Your task to perform on an android device: Search for asus zenbook on target.com, select the first entry, and add it to the cart. Image 0: 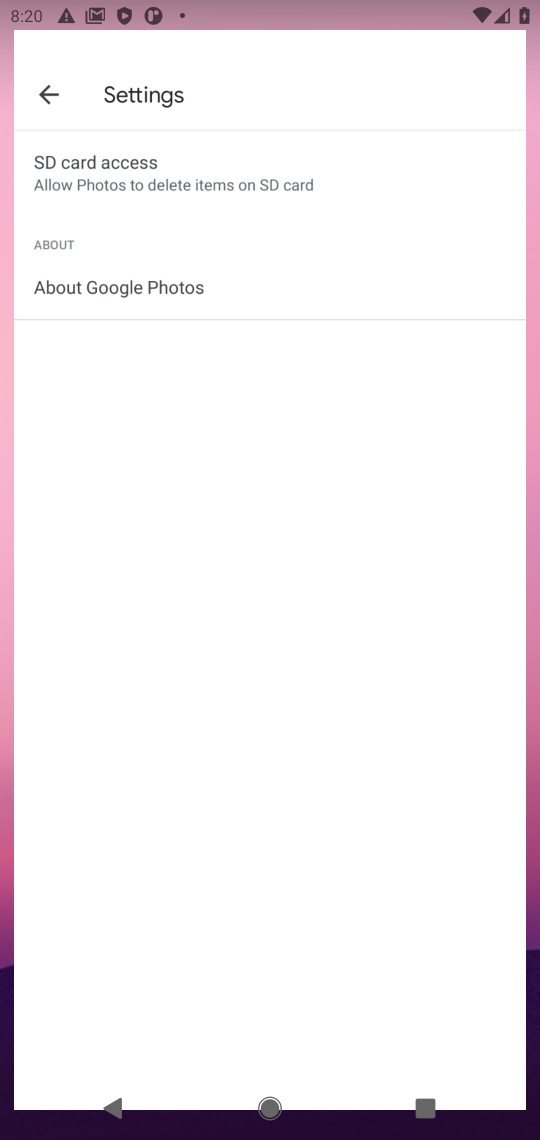
Step 0: click (390, 911)
Your task to perform on an android device: Search for asus zenbook on target.com, select the first entry, and add it to the cart. Image 1: 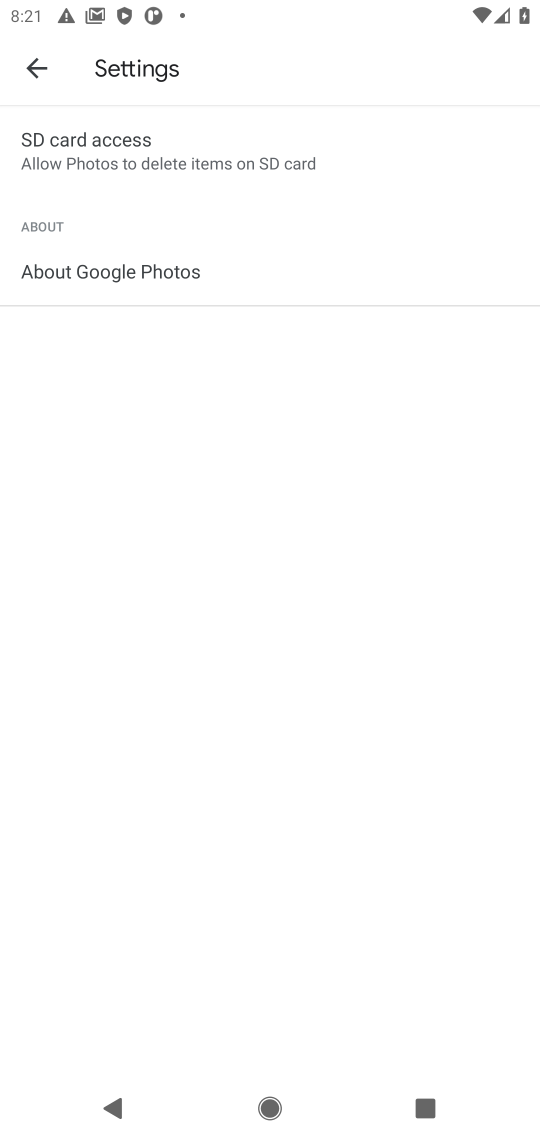
Step 1: press home button
Your task to perform on an android device: Search for asus zenbook on target.com, select the first entry, and add it to the cart. Image 2: 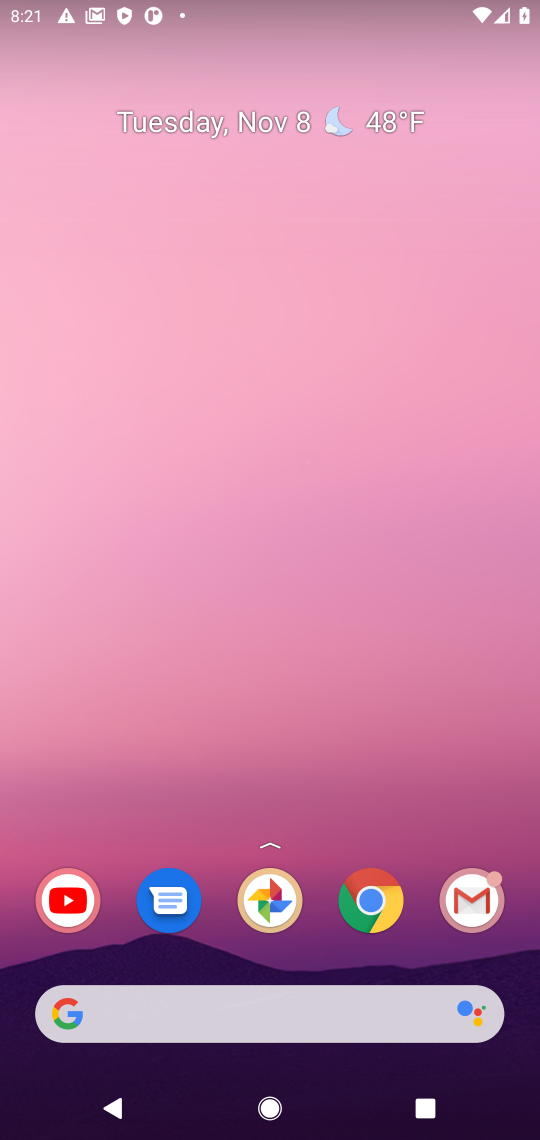
Step 2: click (370, 903)
Your task to perform on an android device: Search for asus zenbook on target.com, select the first entry, and add it to the cart. Image 3: 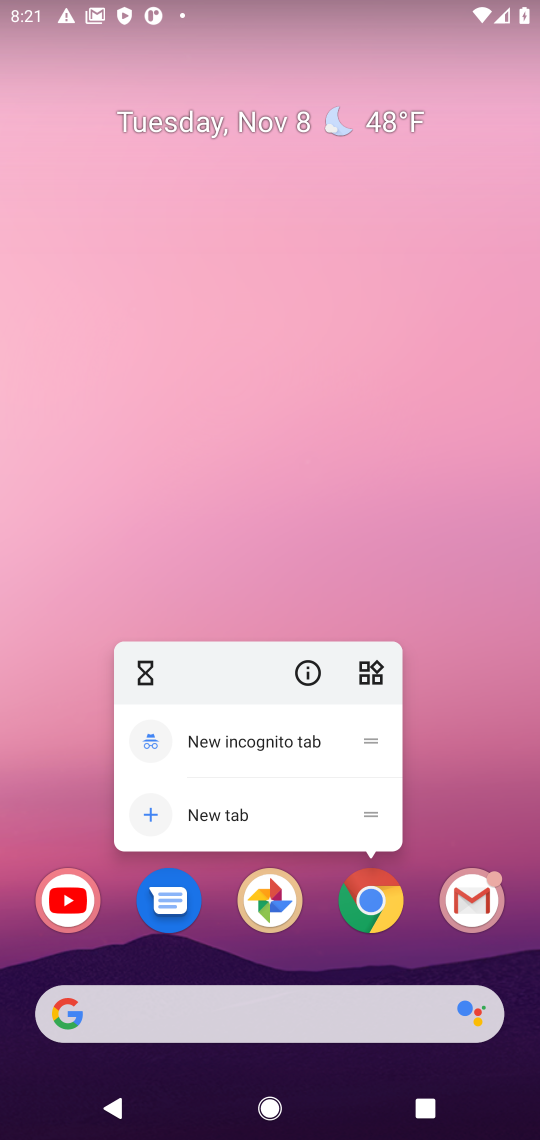
Step 3: click (371, 903)
Your task to perform on an android device: Search for asus zenbook on target.com, select the first entry, and add it to the cart. Image 4: 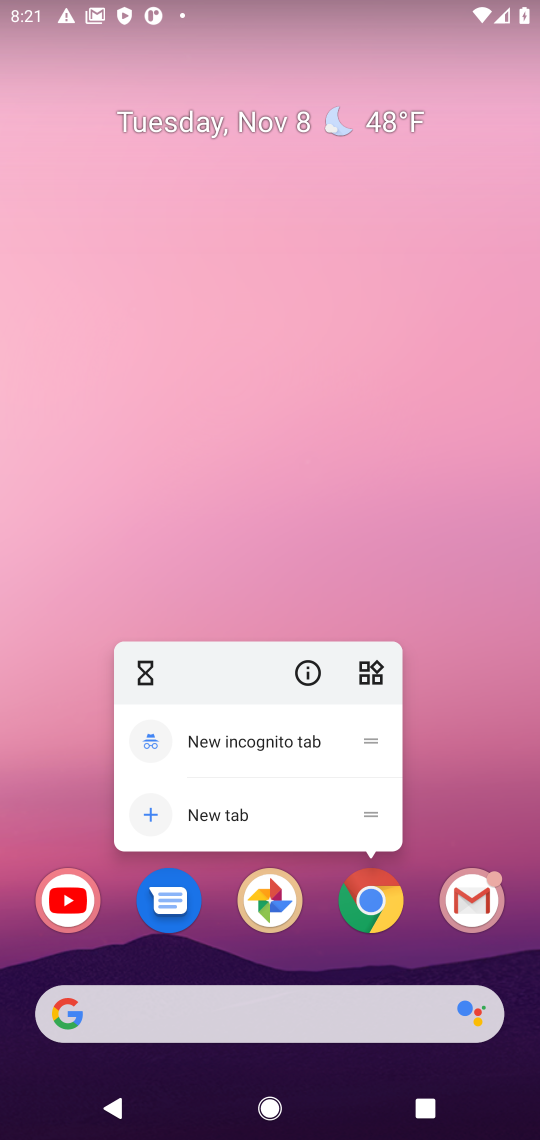
Step 4: click (380, 891)
Your task to perform on an android device: Search for asus zenbook on target.com, select the first entry, and add it to the cart. Image 5: 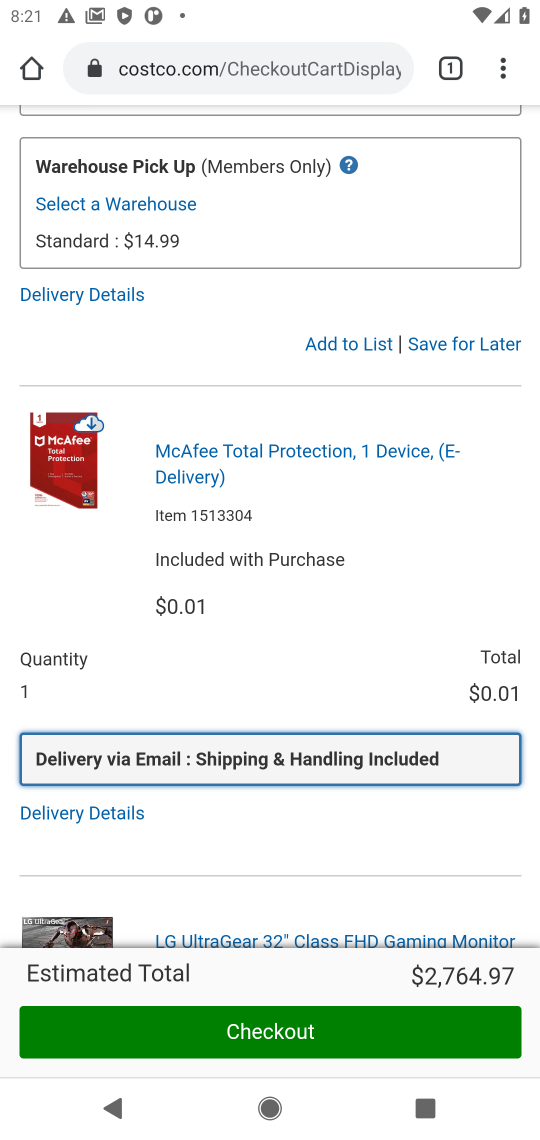
Step 5: click (175, 67)
Your task to perform on an android device: Search for asus zenbook on target.com, select the first entry, and add it to the cart. Image 6: 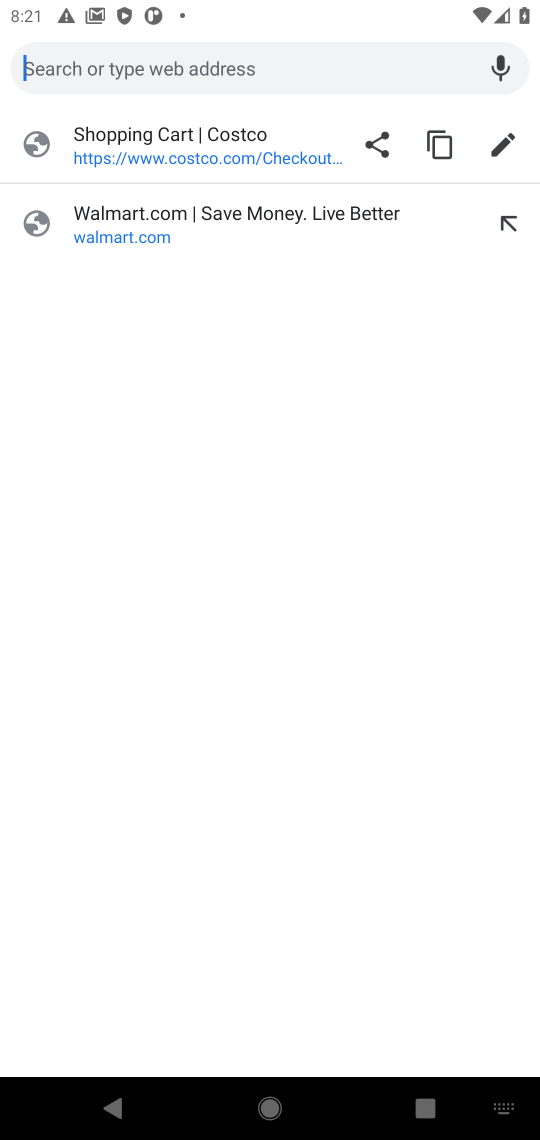
Step 6: type "target"
Your task to perform on an android device: Search for asus zenbook on target.com, select the first entry, and add it to the cart. Image 7: 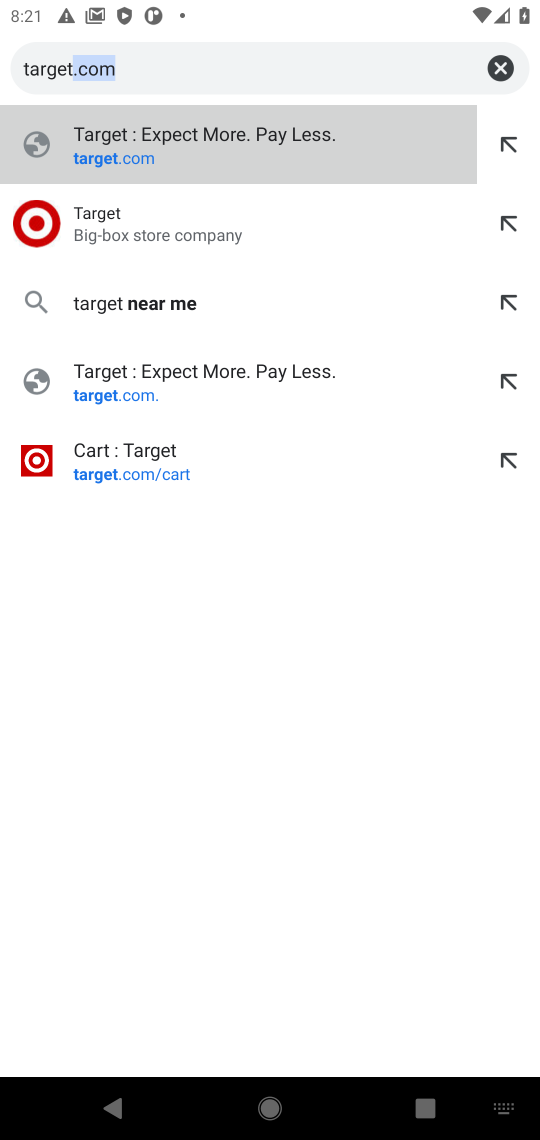
Step 7: click (125, 223)
Your task to perform on an android device: Search for asus zenbook on target.com, select the first entry, and add it to the cart. Image 8: 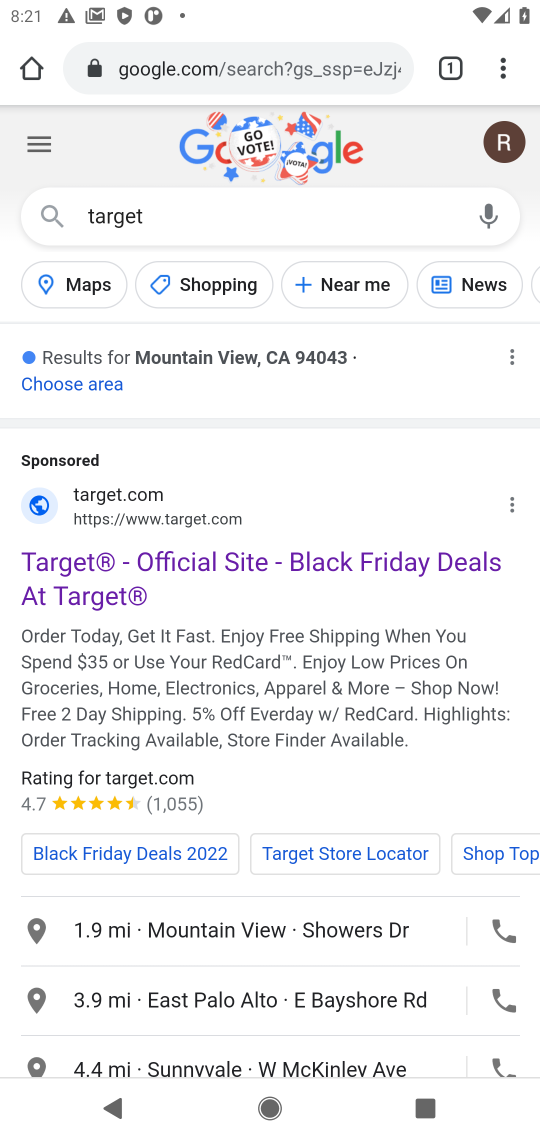
Step 8: drag from (214, 743) to (201, 92)
Your task to perform on an android device: Search for asus zenbook on target.com, select the first entry, and add it to the cart. Image 9: 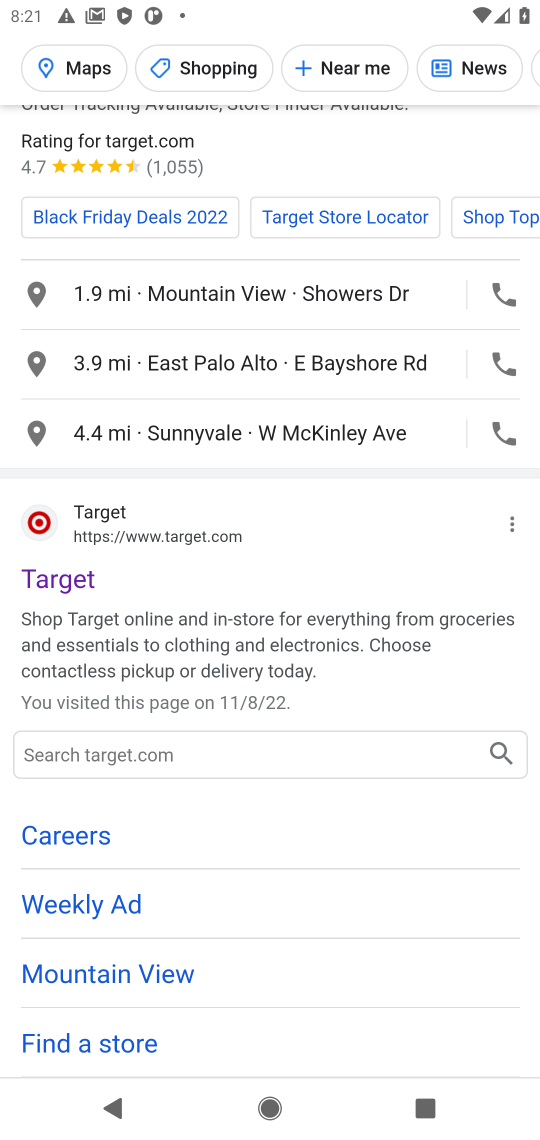
Step 9: click (64, 584)
Your task to perform on an android device: Search for asus zenbook on target.com, select the first entry, and add it to the cart. Image 10: 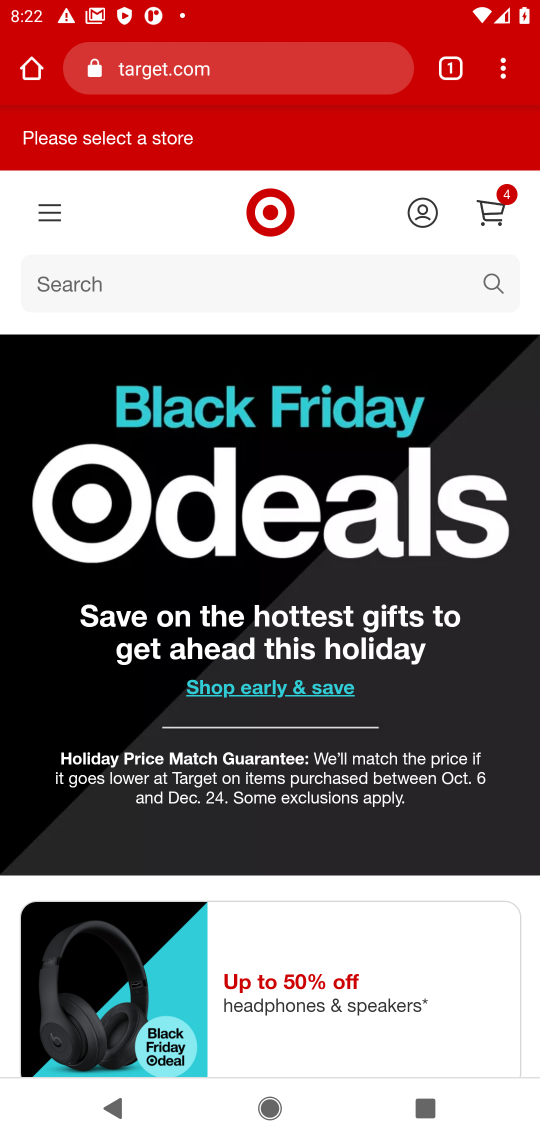
Step 10: click (231, 296)
Your task to perform on an android device: Search for asus zenbook on target.com, select the first entry, and add it to the cart. Image 11: 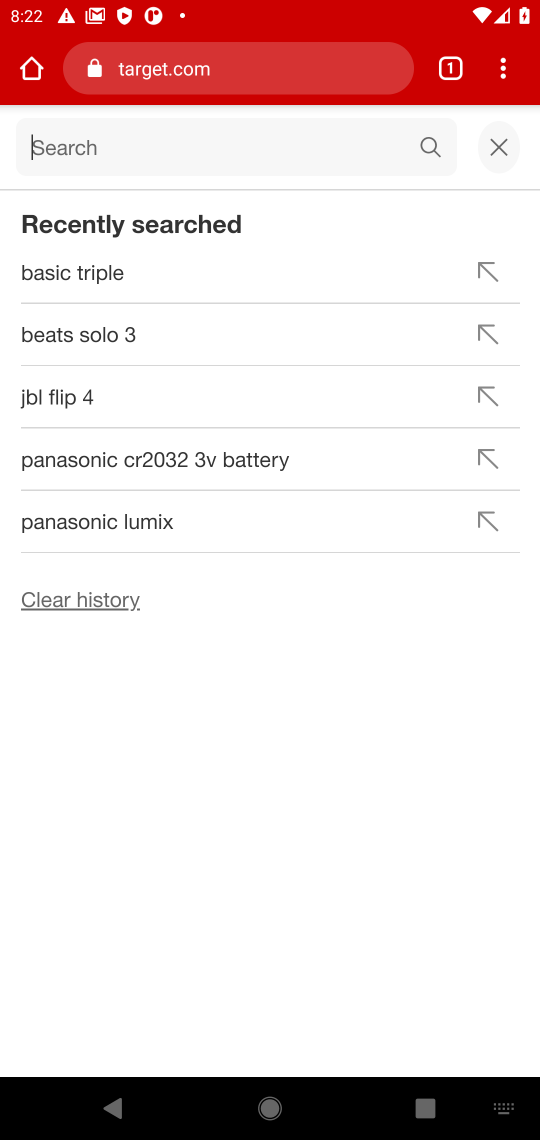
Step 11: type "asus zenbook"
Your task to perform on an android device: Search for asus zenbook on target.com, select the first entry, and add it to the cart. Image 12: 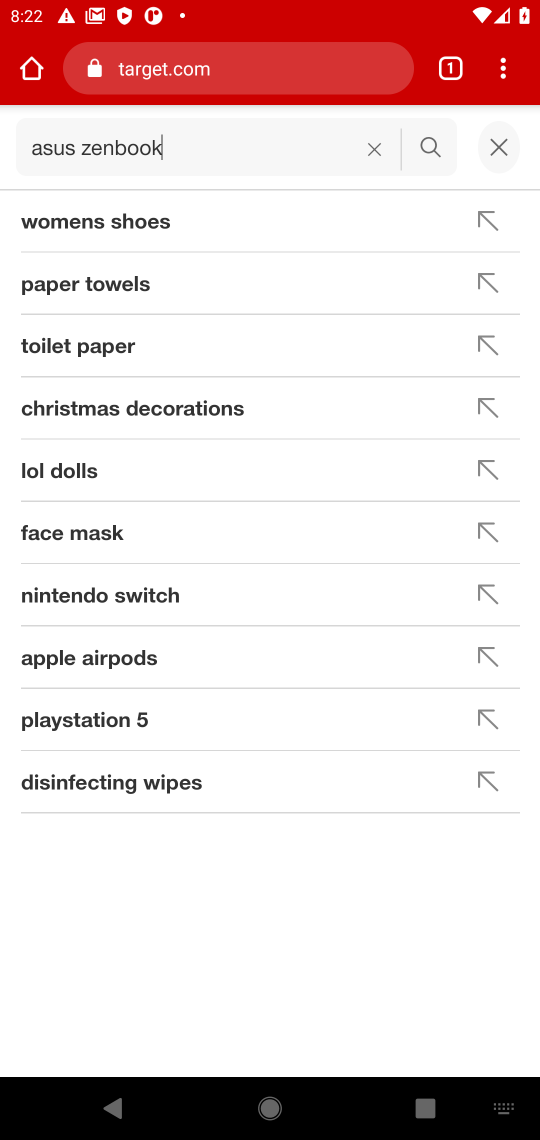
Step 12: type ""
Your task to perform on an android device: Search for asus zenbook on target.com, select the first entry, and add it to the cart. Image 13: 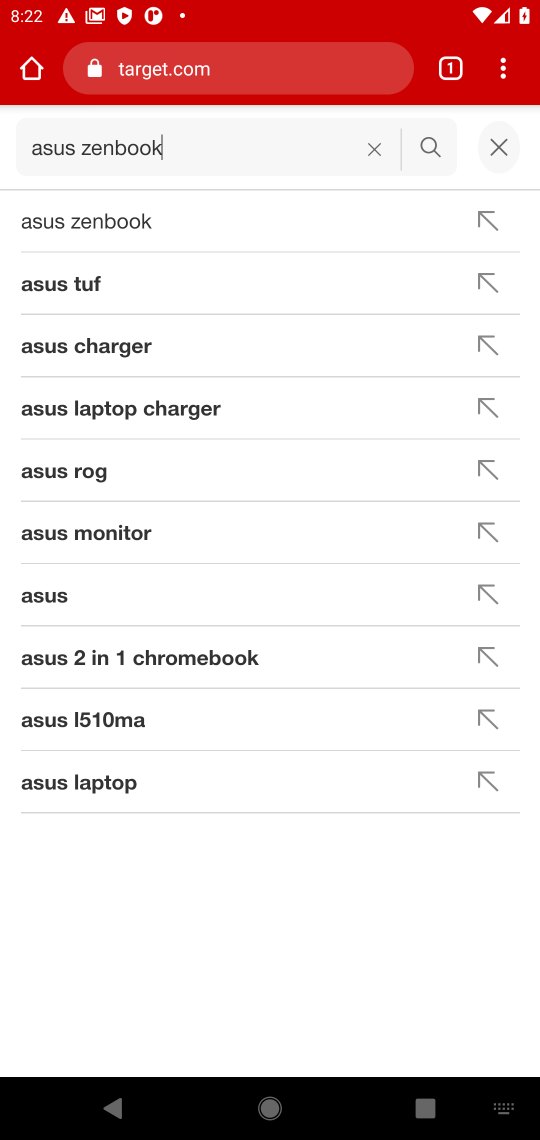
Step 13: click (115, 225)
Your task to perform on an android device: Search for asus zenbook on target.com, select the first entry, and add it to the cart. Image 14: 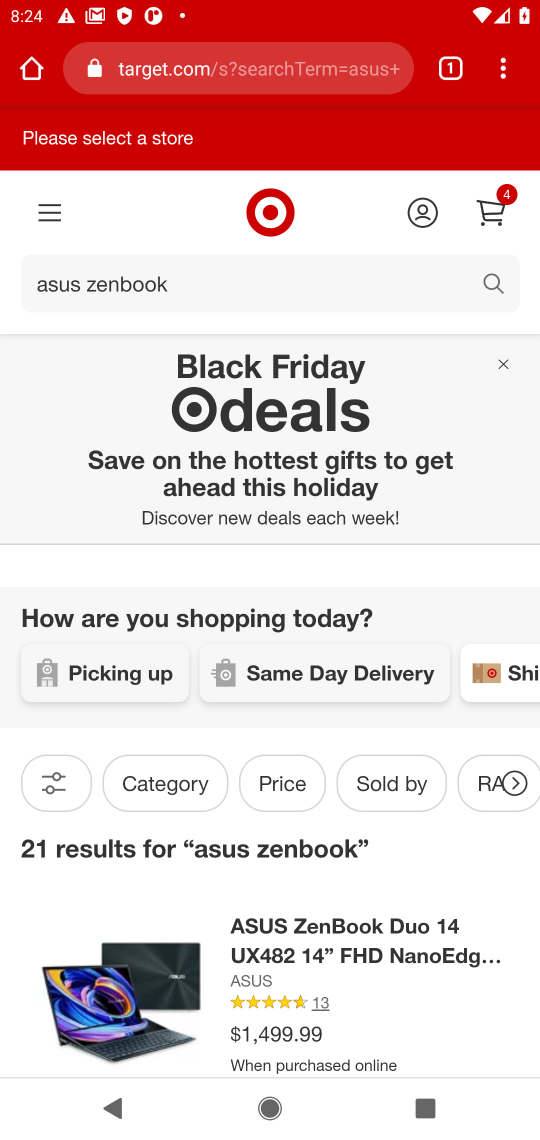
Step 14: click (251, 923)
Your task to perform on an android device: Search for asus zenbook on target.com, select the first entry, and add it to the cart. Image 15: 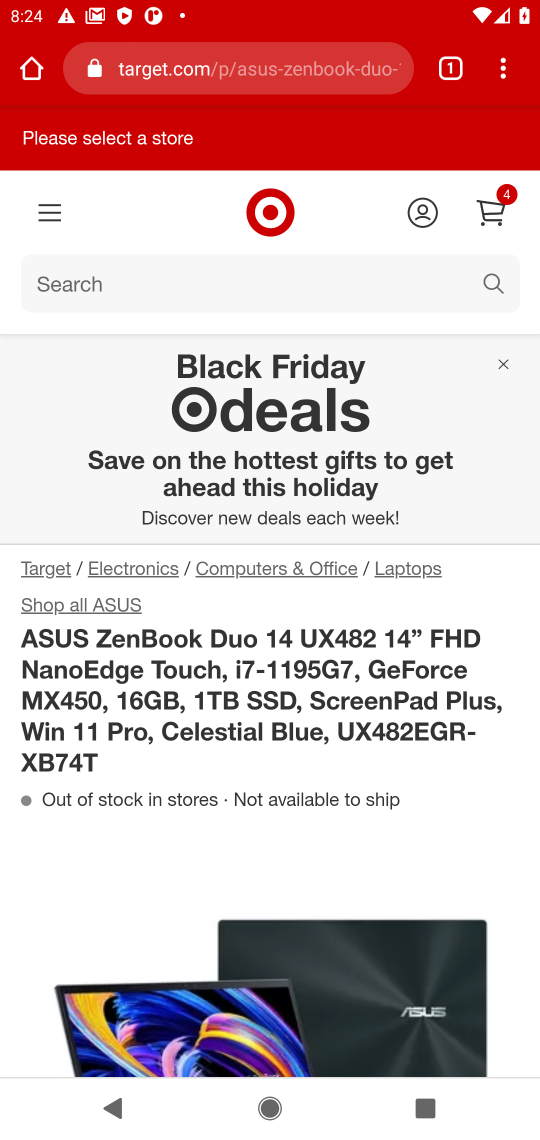
Step 15: drag from (360, 868) to (296, 273)
Your task to perform on an android device: Search for asus zenbook on target.com, select the first entry, and add it to the cart. Image 16: 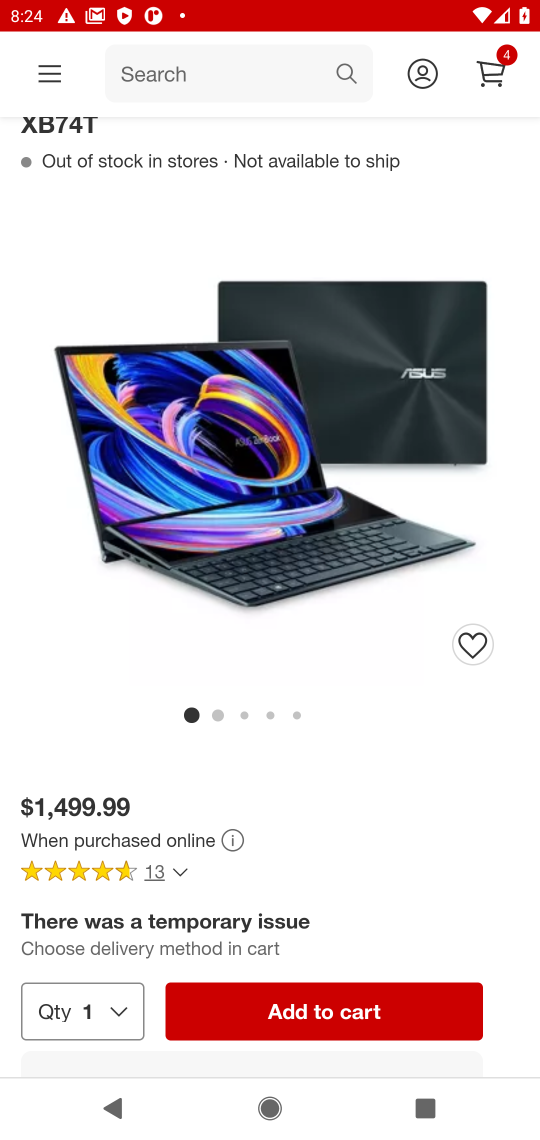
Step 16: click (327, 1004)
Your task to perform on an android device: Search for asus zenbook on target.com, select the first entry, and add it to the cart. Image 17: 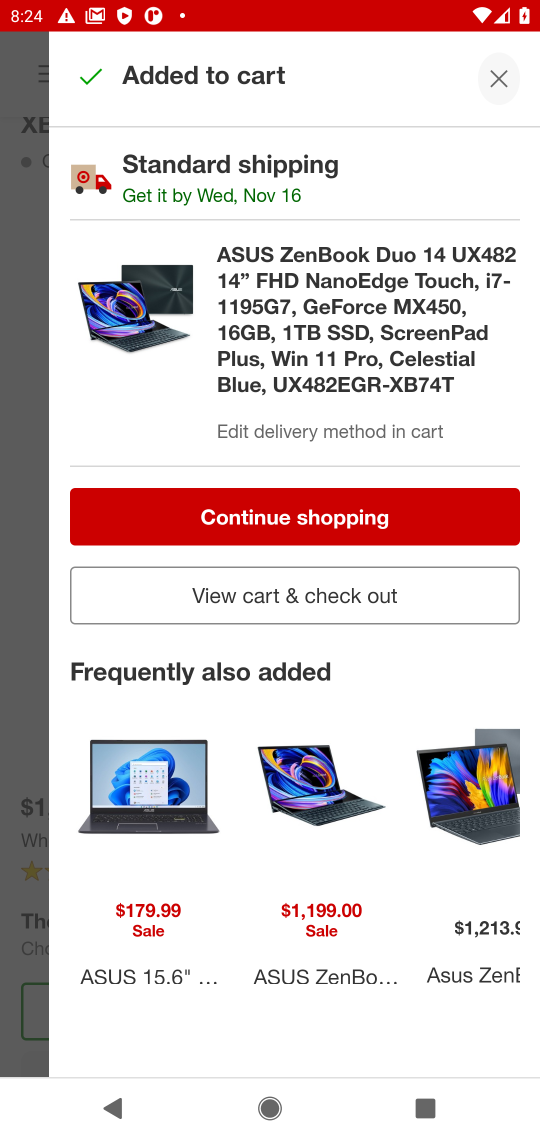
Step 17: click (228, 586)
Your task to perform on an android device: Search for asus zenbook on target.com, select the first entry, and add it to the cart. Image 18: 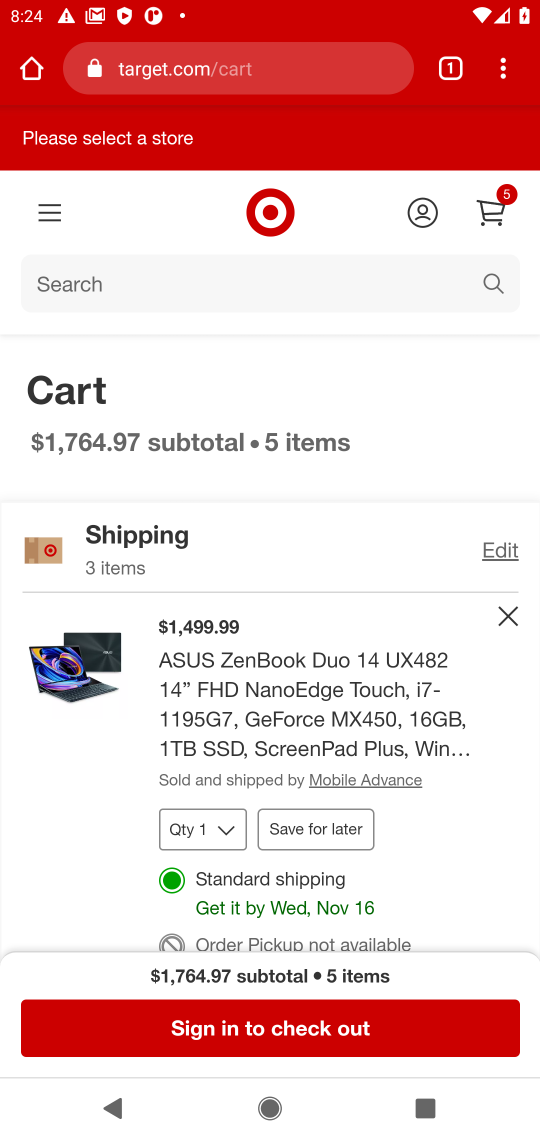
Step 18: task complete